Your task to perform on an android device: turn off sleep mode Image 0: 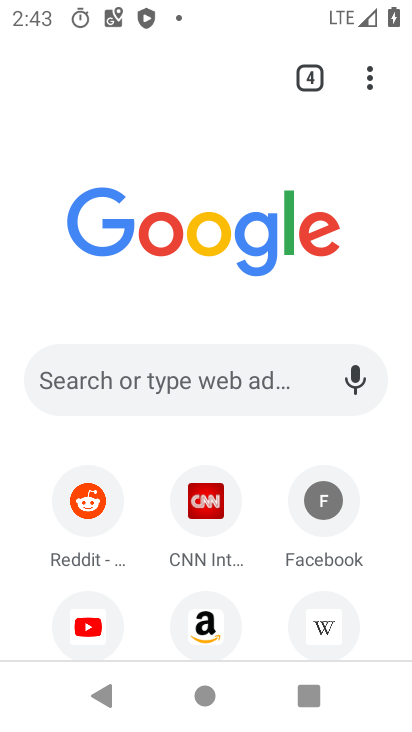
Step 0: press home button
Your task to perform on an android device: turn off sleep mode Image 1: 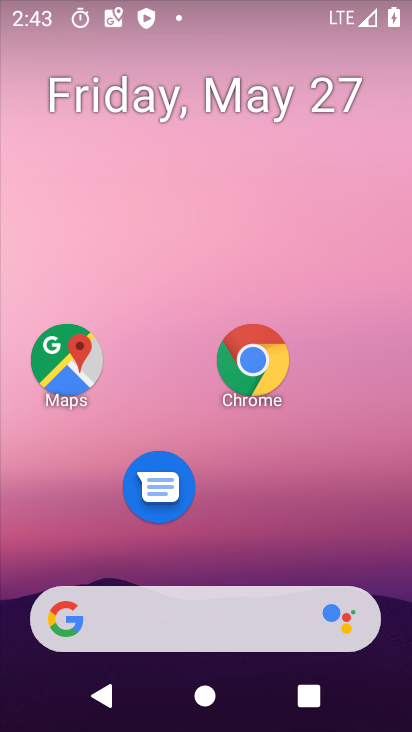
Step 1: drag from (261, 490) to (265, 46)
Your task to perform on an android device: turn off sleep mode Image 2: 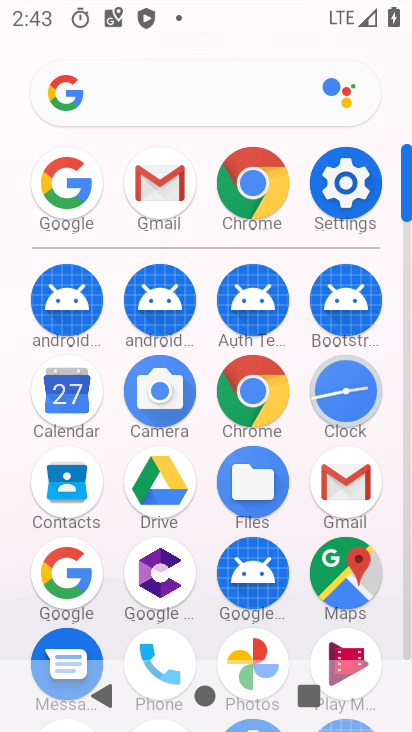
Step 2: click (341, 184)
Your task to perform on an android device: turn off sleep mode Image 3: 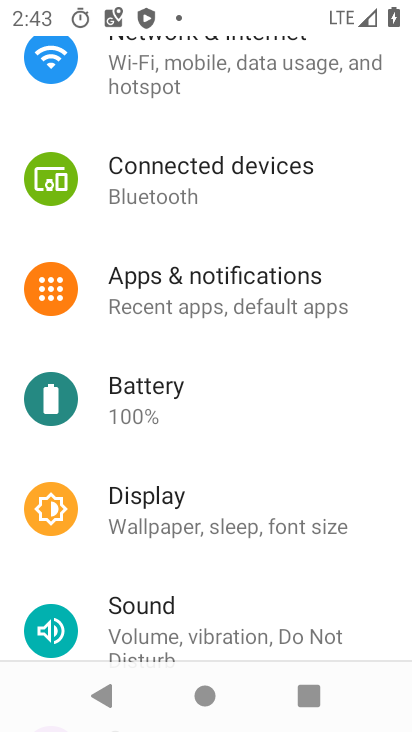
Step 3: click (197, 484)
Your task to perform on an android device: turn off sleep mode Image 4: 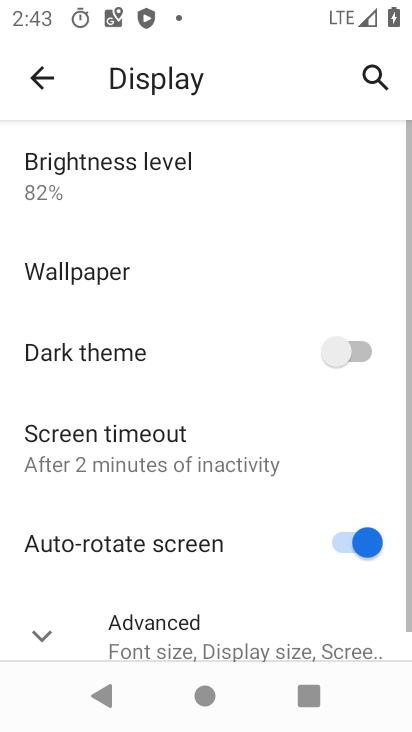
Step 4: drag from (135, 504) to (159, 302)
Your task to perform on an android device: turn off sleep mode Image 5: 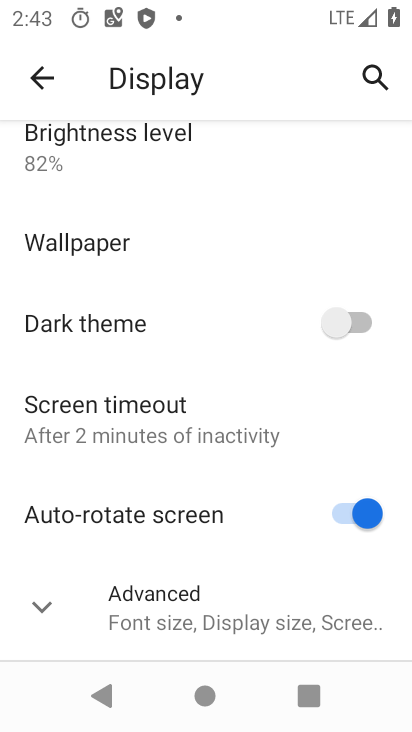
Step 5: click (187, 414)
Your task to perform on an android device: turn off sleep mode Image 6: 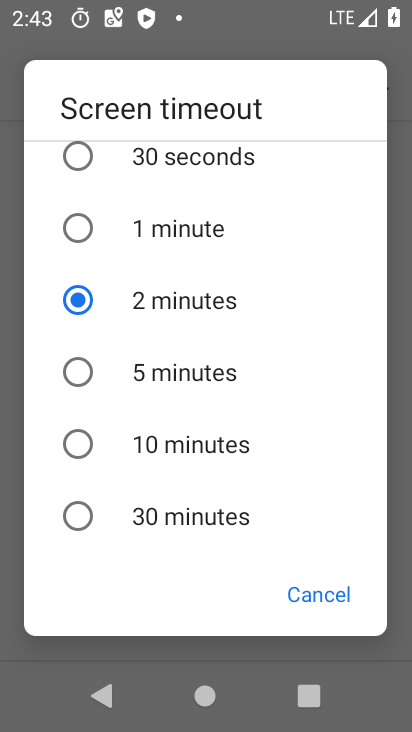
Step 6: task complete